Your task to perform on an android device: add a contact in the contacts app Image 0: 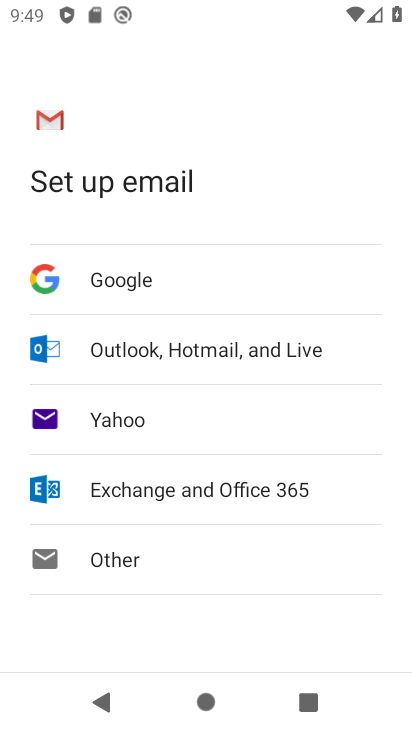
Step 0: press home button
Your task to perform on an android device: add a contact in the contacts app Image 1: 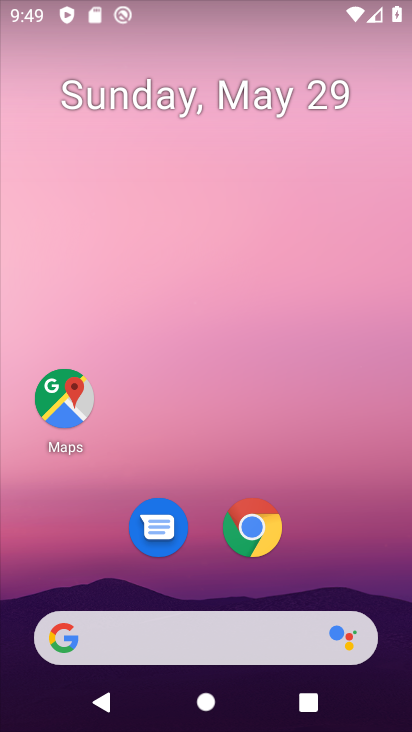
Step 1: drag from (356, 539) to (330, 124)
Your task to perform on an android device: add a contact in the contacts app Image 2: 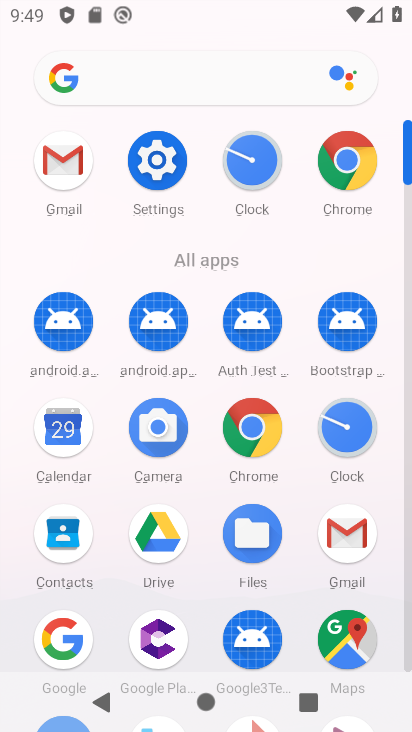
Step 2: click (72, 546)
Your task to perform on an android device: add a contact in the contacts app Image 3: 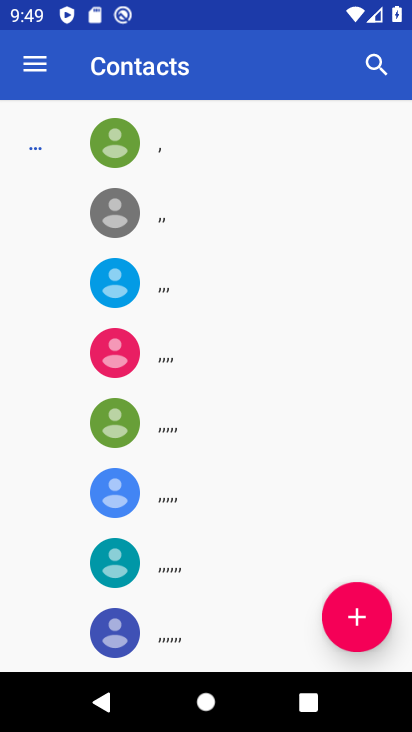
Step 3: click (331, 635)
Your task to perform on an android device: add a contact in the contacts app Image 4: 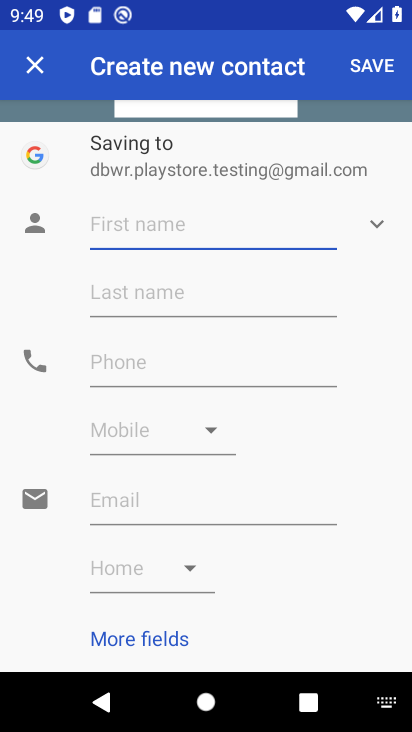
Step 4: type "samarthak"
Your task to perform on an android device: add a contact in the contacts app Image 5: 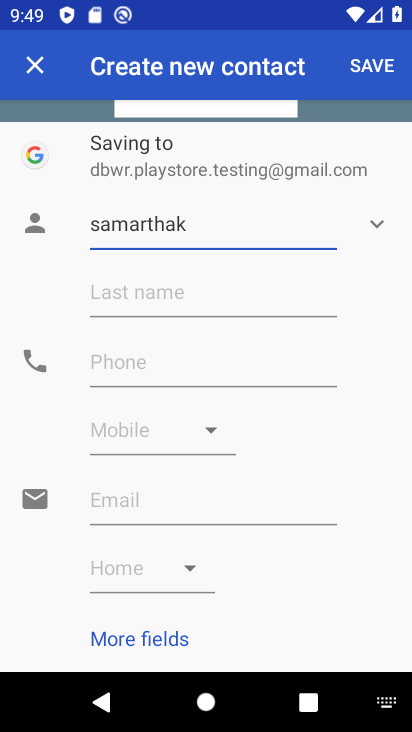
Step 5: click (379, 62)
Your task to perform on an android device: add a contact in the contacts app Image 6: 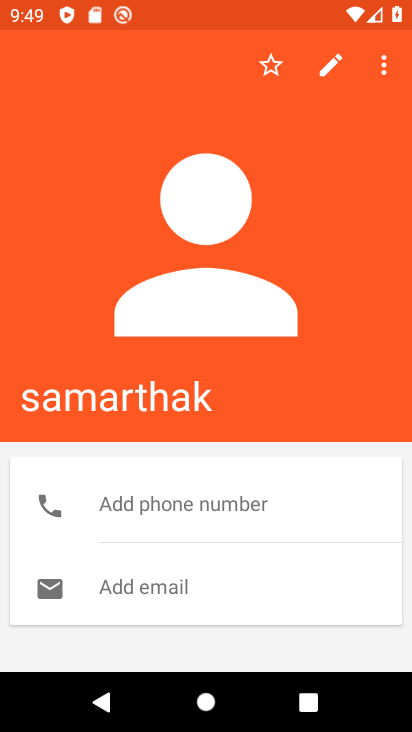
Step 6: task complete